Your task to perform on an android device: turn vacation reply on in the gmail app Image 0: 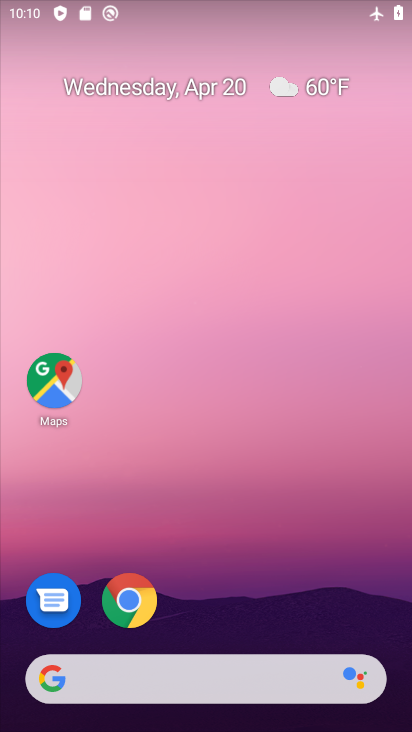
Step 0: drag from (239, 608) to (247, 125)
Your task to perform on an android device: turn vacation reply on in the gmail app Image 1: 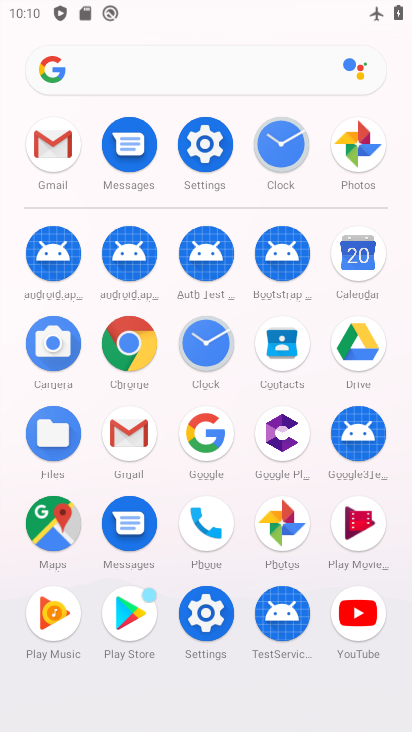
Step 1: click (51, 169)
Your task to perform on an android device: turn vacation reply on in the gmail app Image 2: 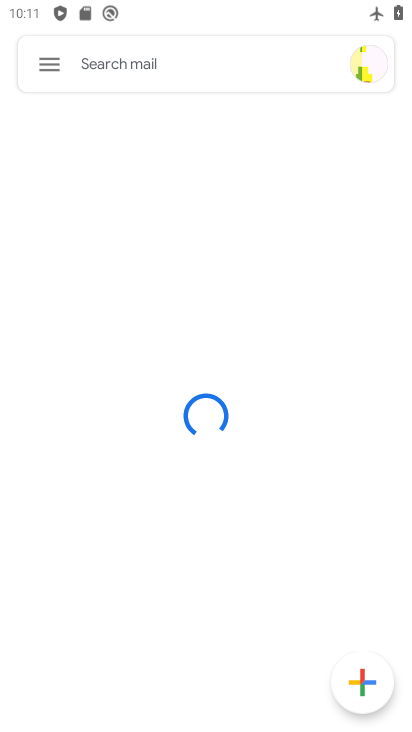
Step 2: click (44, 81)
Your task to perform on an android device: turn vacation reply on in the gmail app Image 3: 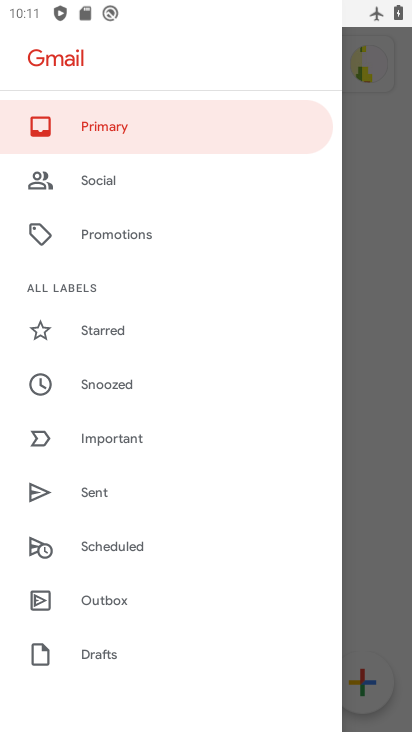
Step 3: drag from (195, 528) to (240, 119)
Your task to perform on an android device: turn vacation reply on in the gmail app Image 4: 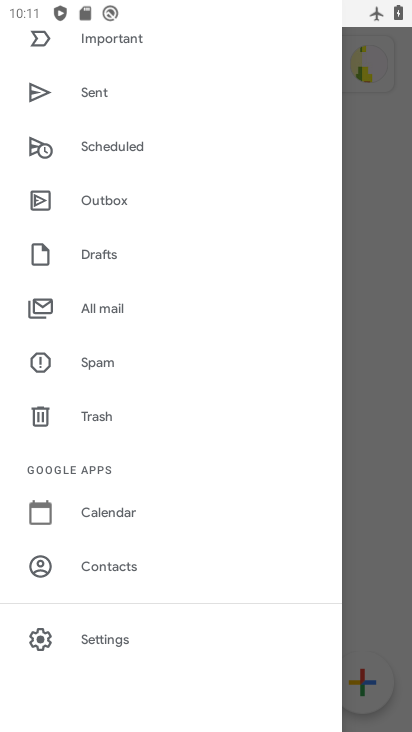
Step 4: click (168, 633)
Your task to perform on an android device: turn vacation reply on in the gmail app Image 5: 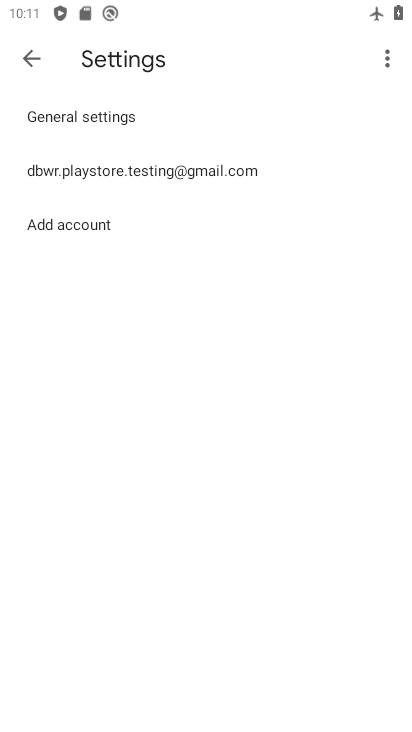
Step 5: click (188, 179)
Your task to perform on an android device: turn vacation reply on in the gmail app Image 6: 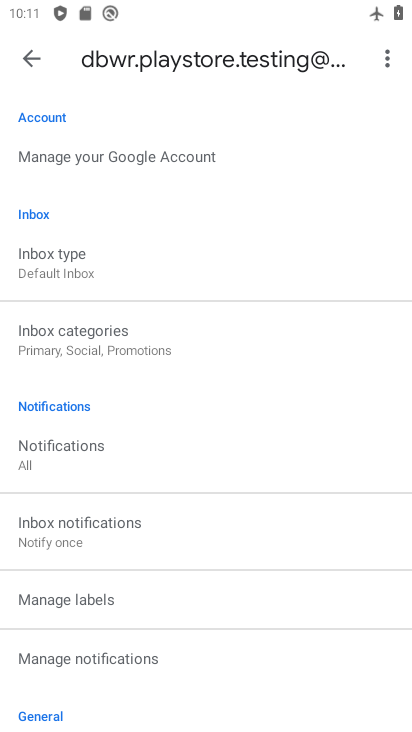
Step 6: drag from (120, 680) to (133, 202)
Your task to perform on an android device: turn vacation reply on in the gmail app Image 7: 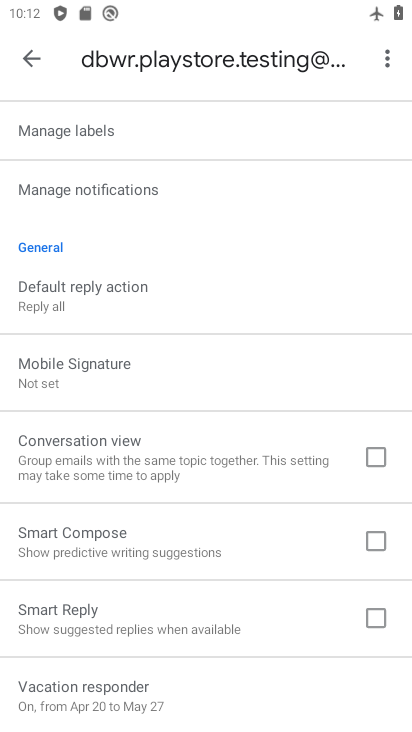
Step 7: click (129, 697)
Your task to perform on an android device: turn vacation reply on in the gmail app Image 8: 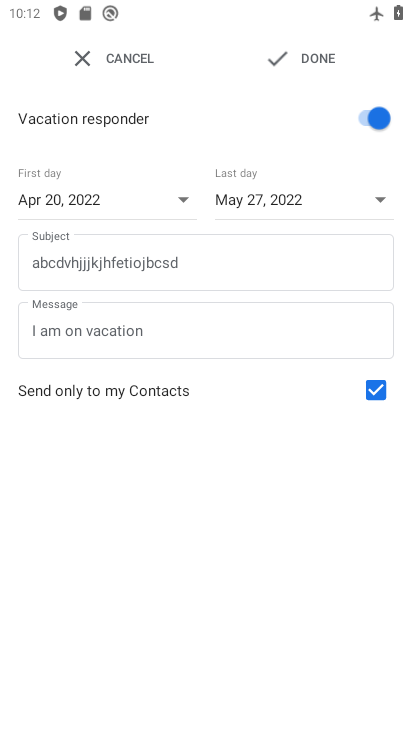
Step 8: click (320, 57)
Your task to perform on an android device: turn vacation reply on in the gmail app Image 9: 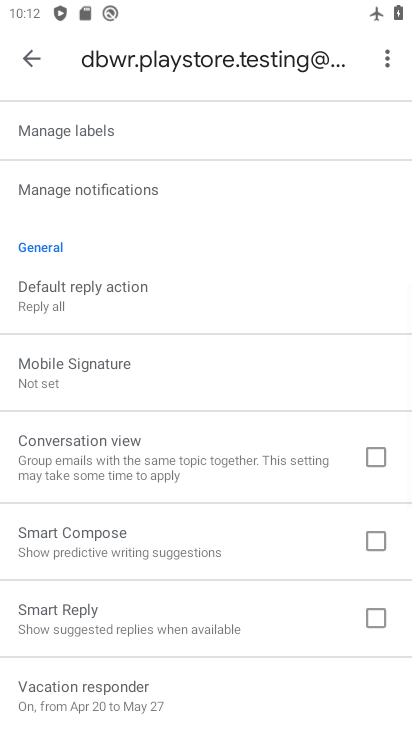
Step 9: task complete